Your task to perform on an android device: toggle airplane mode Image 0: 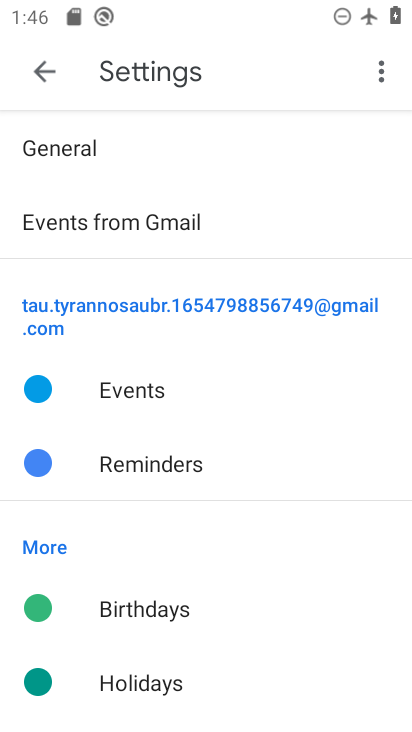
Step 0: press home button
Your task to perform on an android device: toggle airplane mode Image 1: 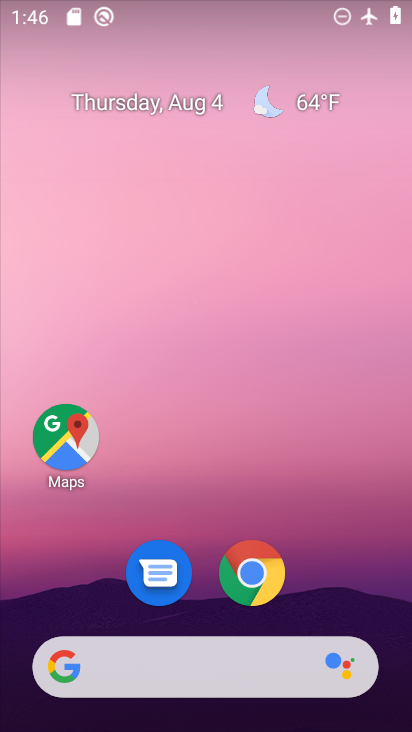
Step 1: drag from (364, 550) to (327, 134)
Your task to perform on an android device: toggle airplane mode Image 2: 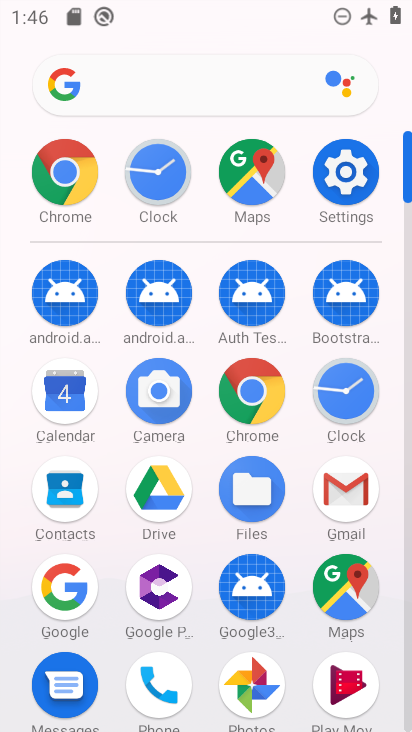
Step 2: click (342, 174)
Your task to perform on an android device: toggle airplane mode Image 3: 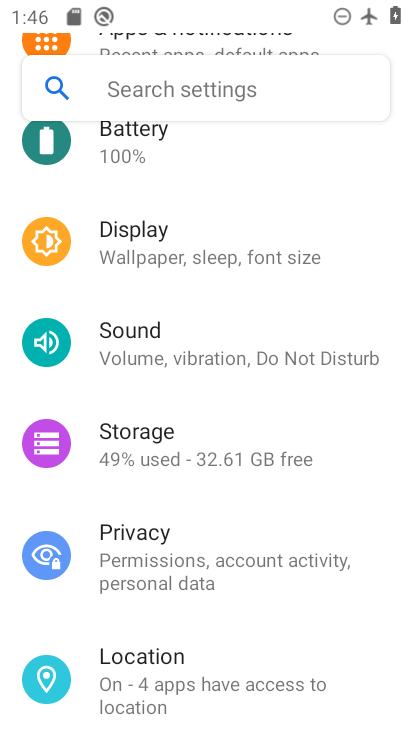
Step 3: drag from (267, 170) to (195, 568)
Your task to perform on an android device: toggle airplane mode Image 4: 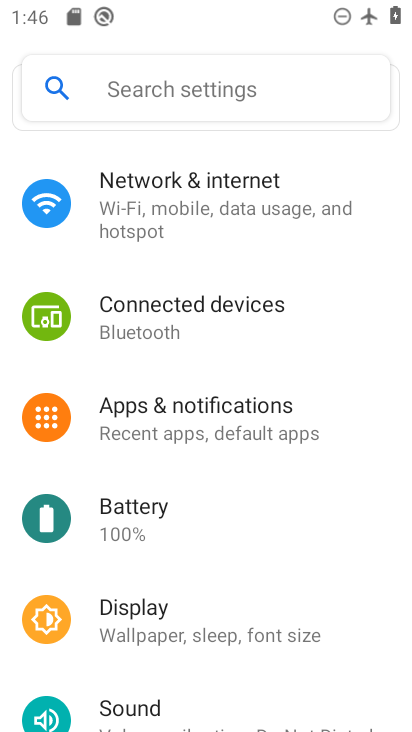
Step 4: click (192, 210)
Your task to perform on an android device: toggle airplane mode Image 5: 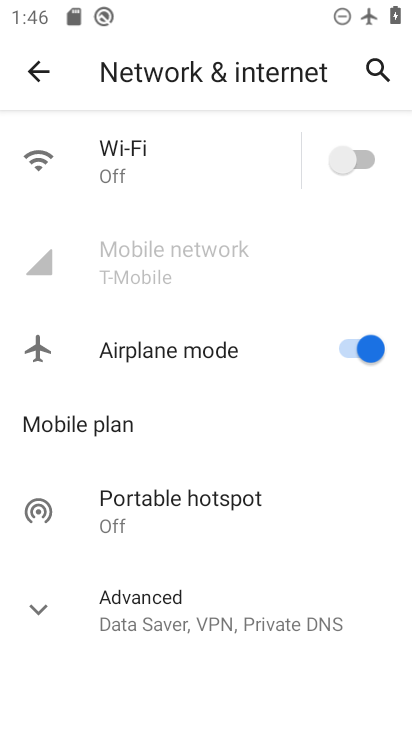
Step 5: click (350, 358)
Your task to perform on an android device: toggle airplane mode Image 6: 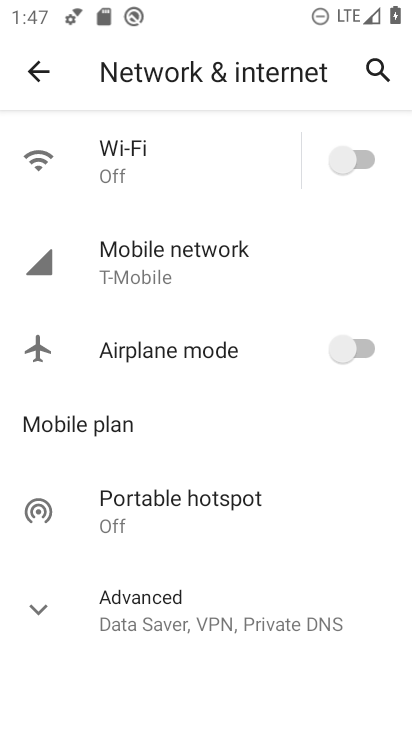
Step 6: task complete